Your task to perform on an android device: When is my next meeting? Image 0: 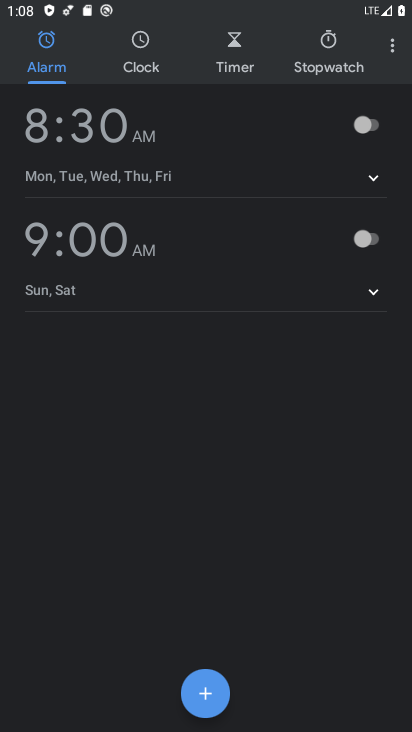
Step 0: press home button
Your task to perform on an android device: When is my next meeting? Image 1: 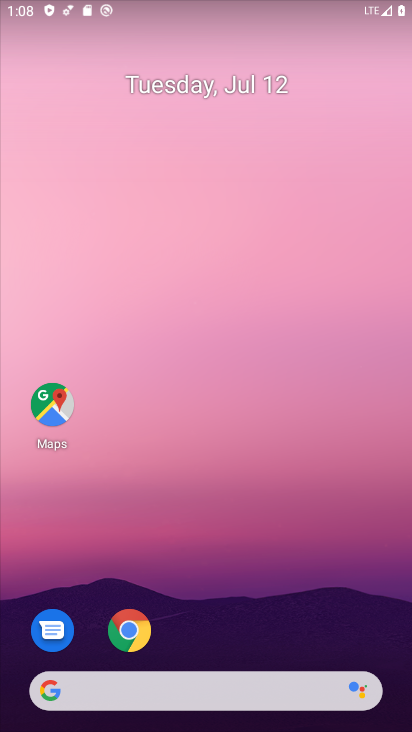
Step 1: drag from (392, 653) to (313, 91)
Your task to perform on an android device: When is my next meeting? Image 2: 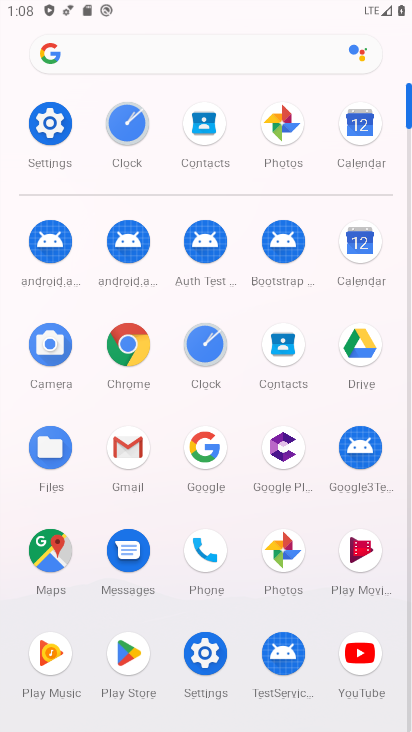
Step 2: click (358, 244)
Your task to perform on an android device: When is my next meeting? Image 3: 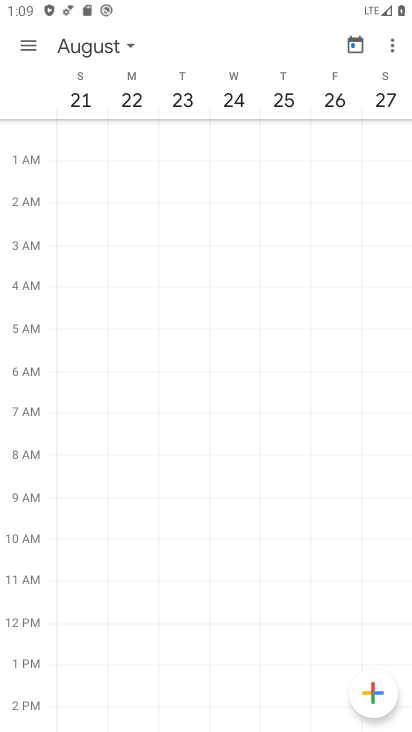
Step 3: click (23, 42)
Your task to perform on an android device: When is my next meeting? Image 4: 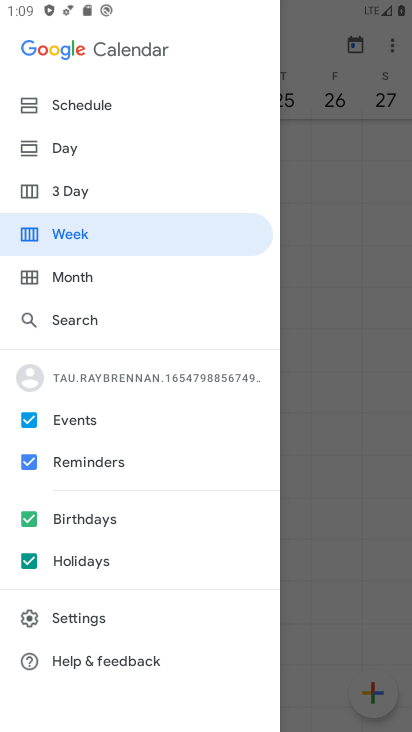
Step 4: click (92, 108)
Your task to perform on an android device: When is my next meeting? Image 5: 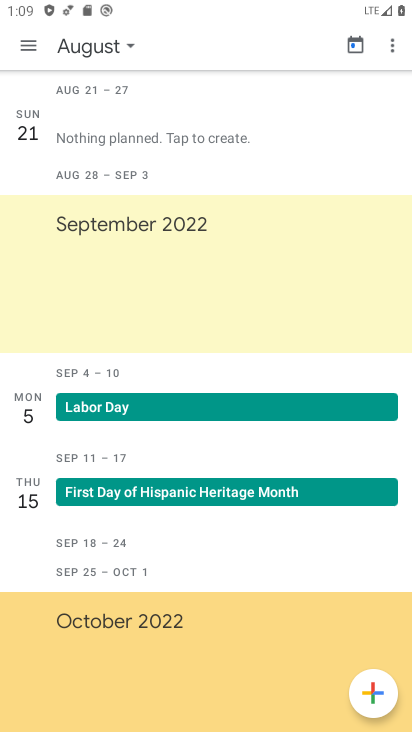
Step 5: task complete